Your task to perform on an android device: Show me the alarms in the clock app Image 0: 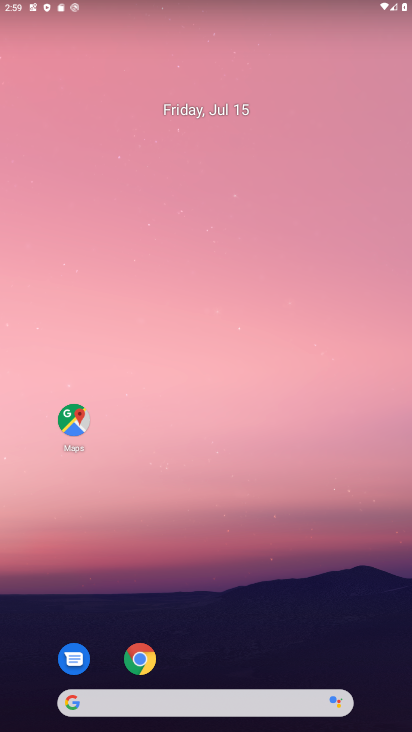
Step 0: click (74, 422)
Your task to perform on an android device: Show me the alarms in the clock app Image 1: 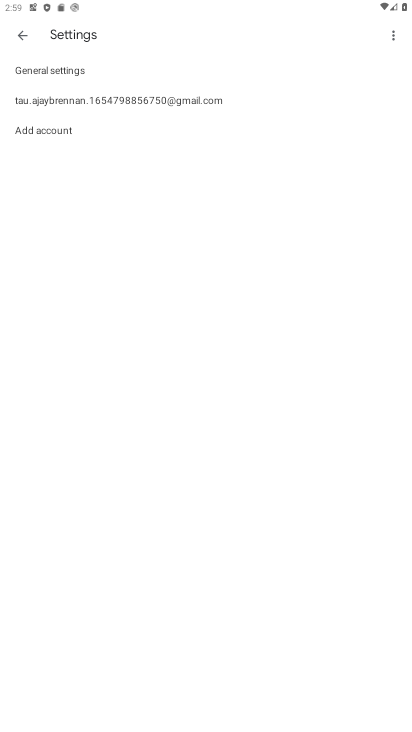
Step 1: press home button
Your task to perform on an android device: Show me the alarms in the clock app Image 2: 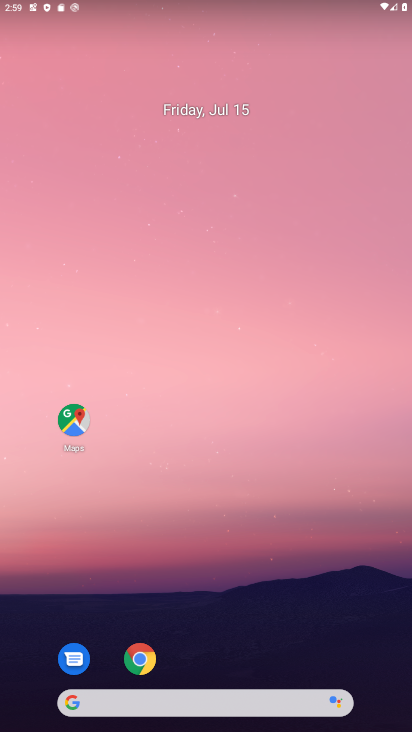
Step 2: drag from (190, 598) to (188, 180)
Your task to perform on an android device: Show me the alarms in the clock app Image 3: 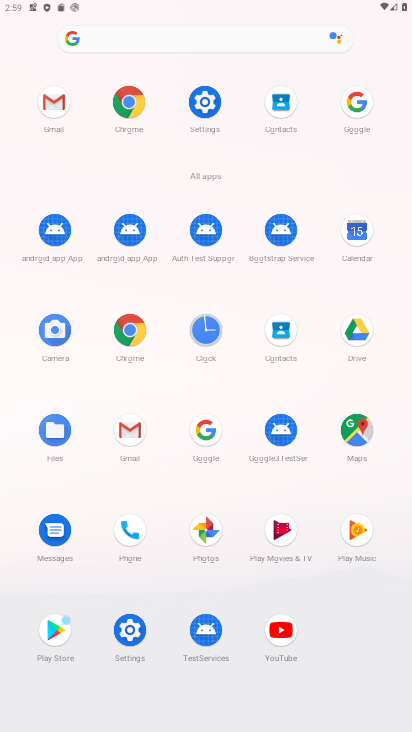
Step 3: click (205, 335)
Your task to perform on an android device: Show me the alarms in the clock app Image 4: 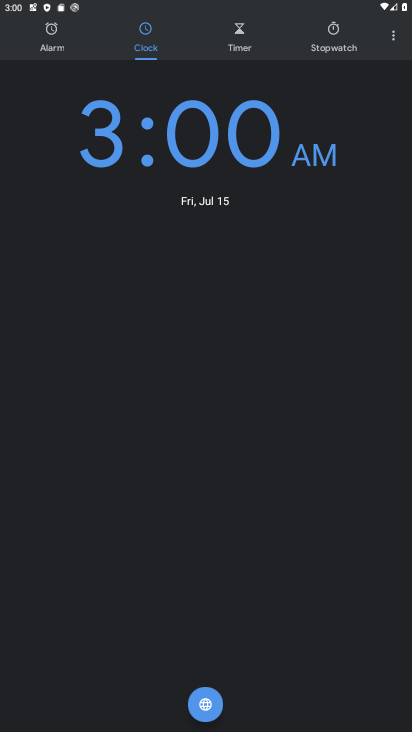
Step 4: click (65, 43)
Your task to perform on an android device: Show me the alarms in the clock app Image 5: 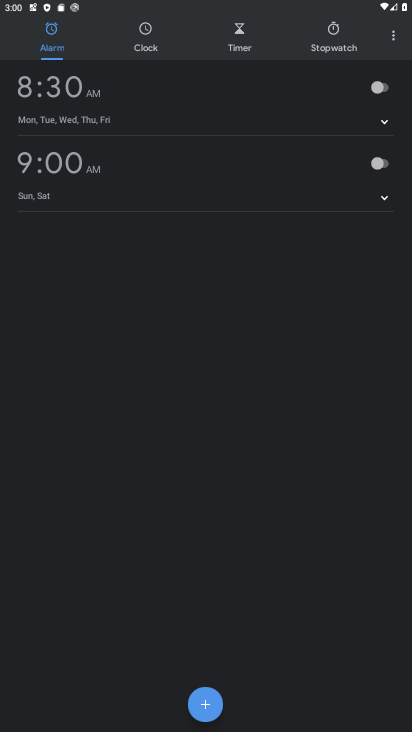
Step 5: task complete